Your task to perform on an android device: toggle wifi Image 0: 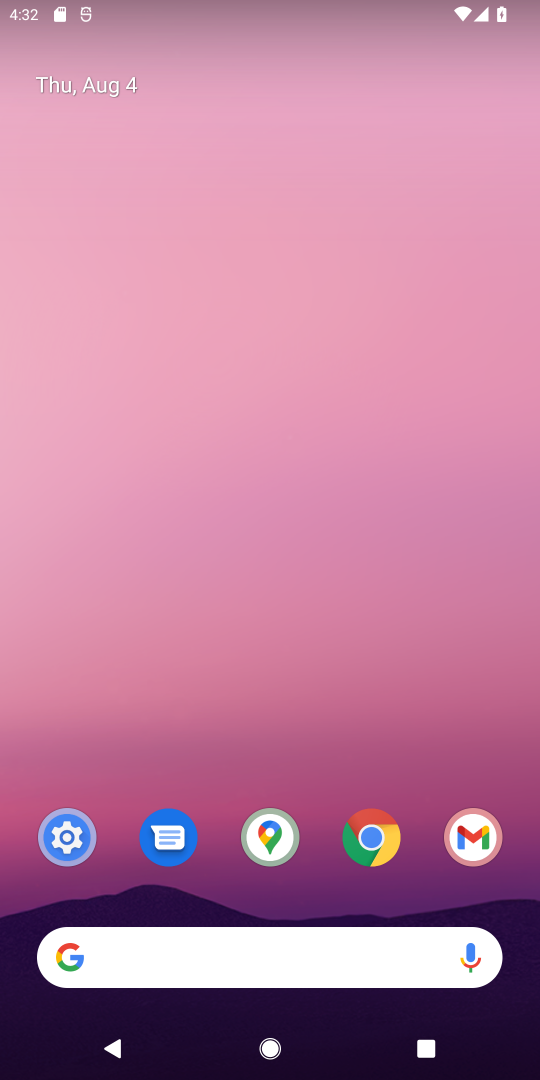
Step 0: click (68, 815)
Your task to perform on an android device: toggle wifi Image 1: 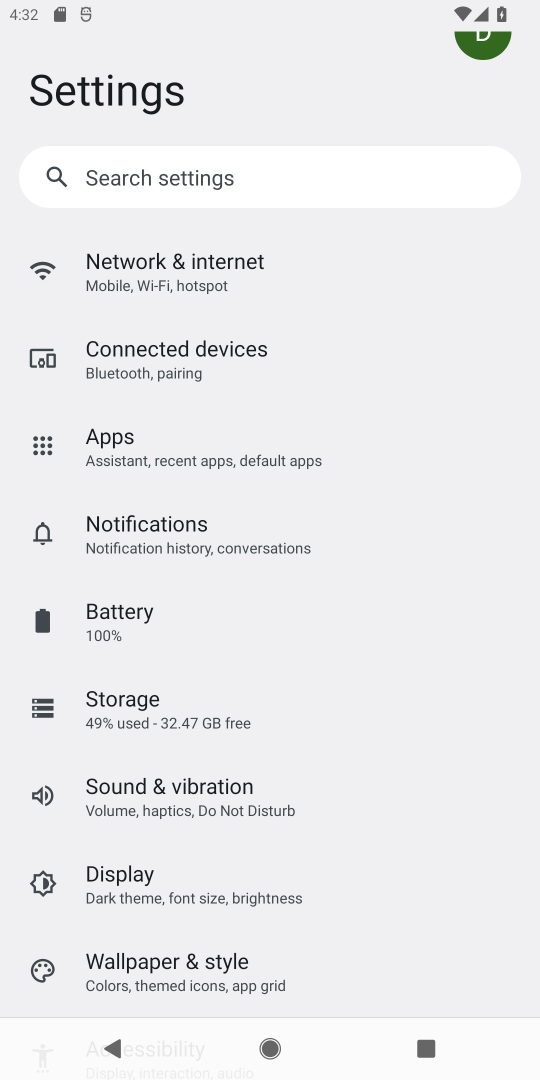
Step 1: click (139, 259)
Your task to perform on an android device: toggle wifi Image 2: 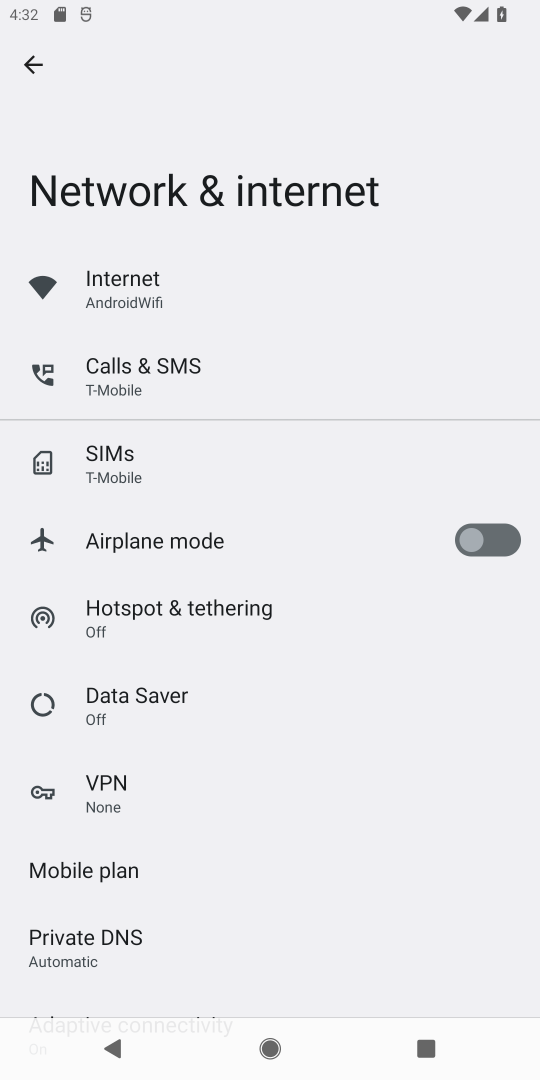
Step 2: click (142, 306)
Your task to perform on an android device: toggle wifi Image 3: 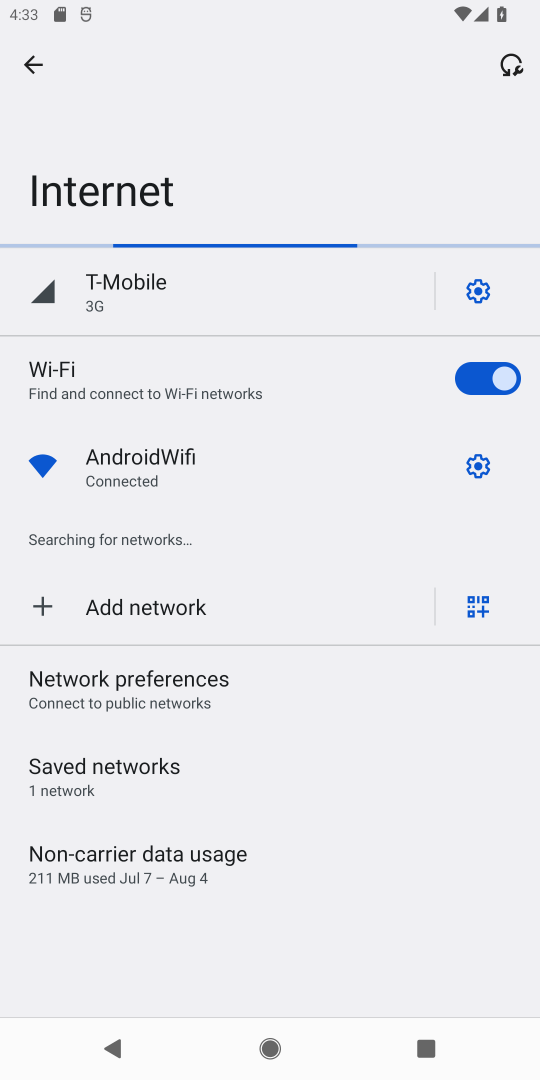
Step 3: click (482, 358)
Your task to perform on an android device: toggle wifi Image 4: 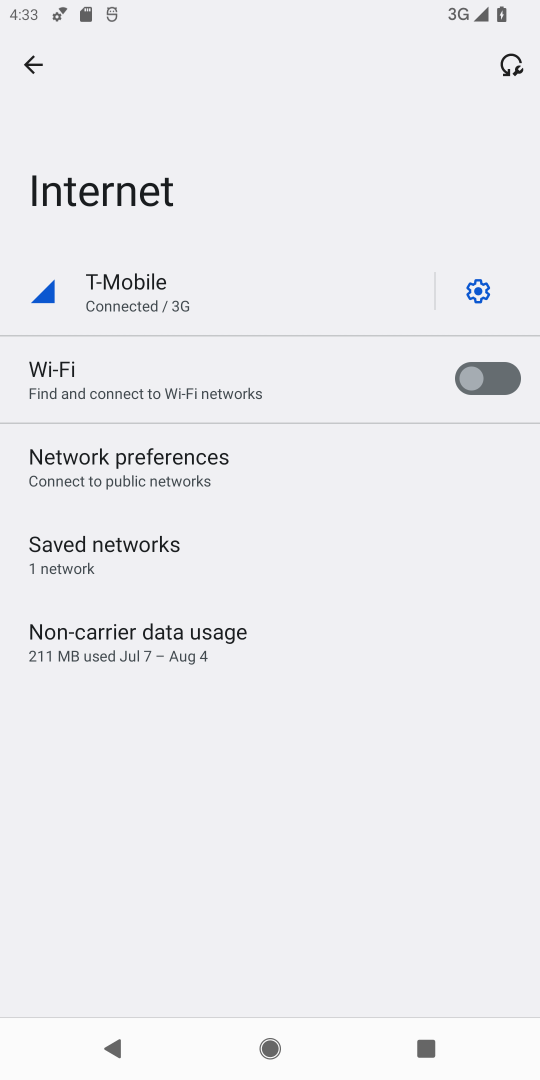
Step 4: task complete